Your task to perform on an android device: delete the emails in spam in the gmail app Image 0: 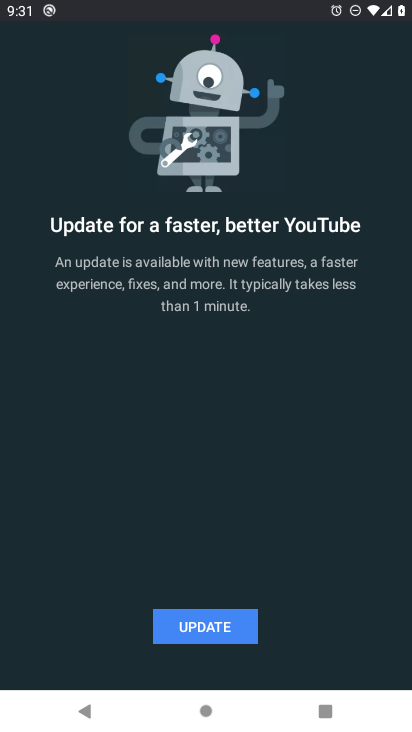
Step 0: press home button
Your task to perform on an android device: delete the emails in spam in the gmail app Image 1: 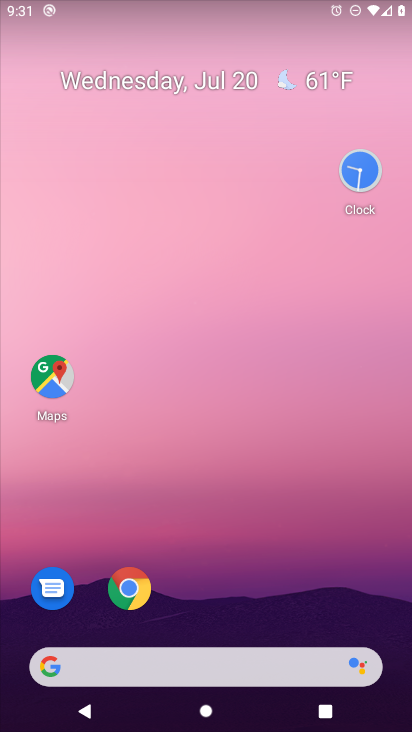
Step 1: drag from (62, 718) to (168, 64)
Your task to perform on an android device: delete the emails in spam in the gmail app Image 2: 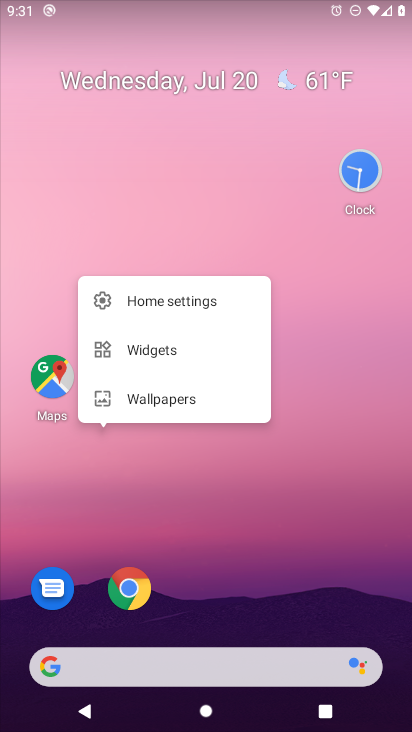
Step 2: drag from (29, 708) to (184, 80)
Your task to perform on an android device: delete the emails in spam in the gmail app Image 3: 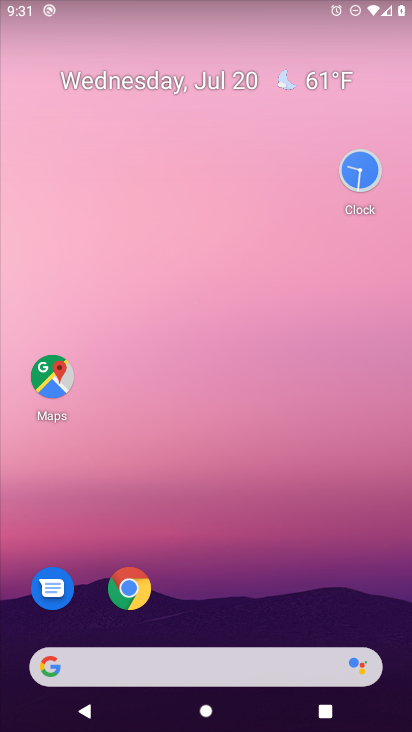
Step 3: drag from (62, 710) to (235, 184)
Your task to perform on an android device: delete the emails in spam in the gmail app Image 4: 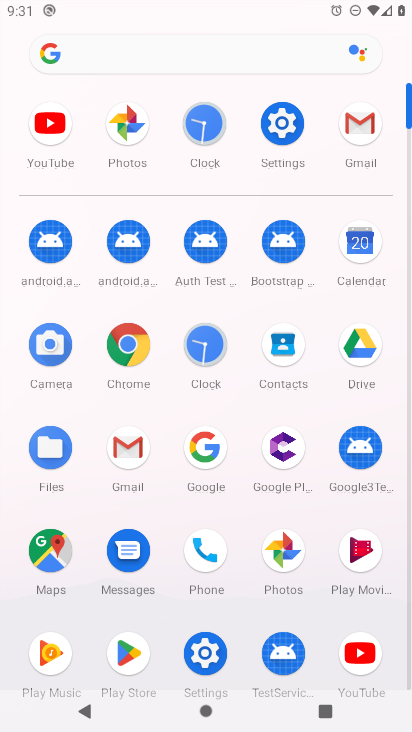
Step 4: click (119, 451)
Your task to perform on an android device: delete the emails in spam in the gmail app Image 5: 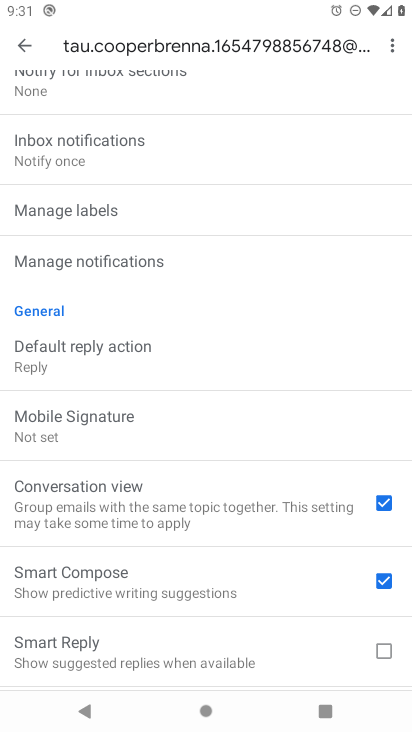
Step 5: click (33, 50)
Your task to perform on an android device: delete the emails in spam in the gmail app Image 6: 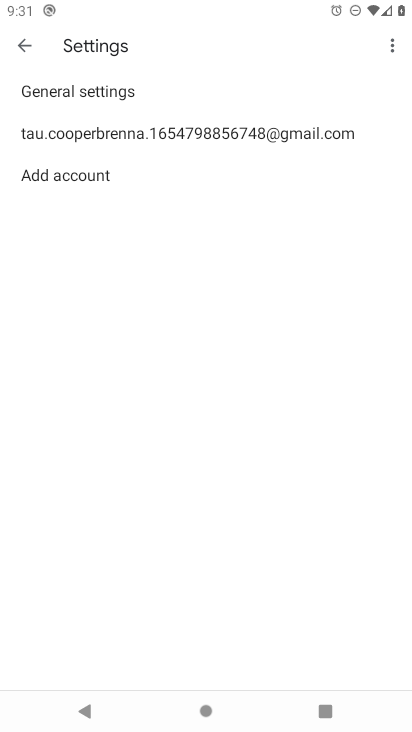
Step 6: click (20, 39)
Your task to perform on an android device: delete the emails in spam in the gmail app Image 7: 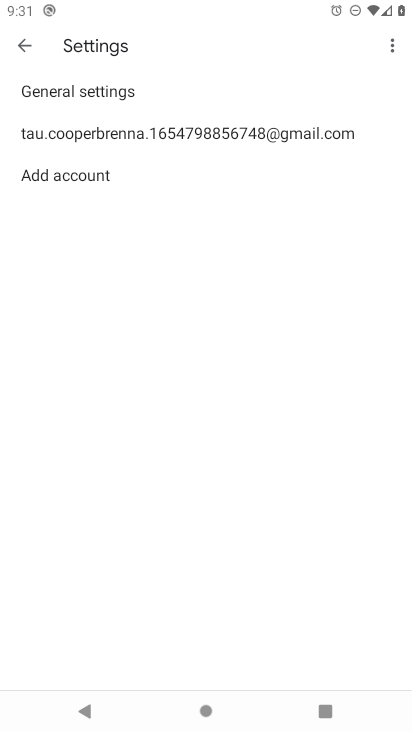
Step 7: click (21, 51)
Your task to perform on an android device: delete the emails in spam in the gmail app Image 8: 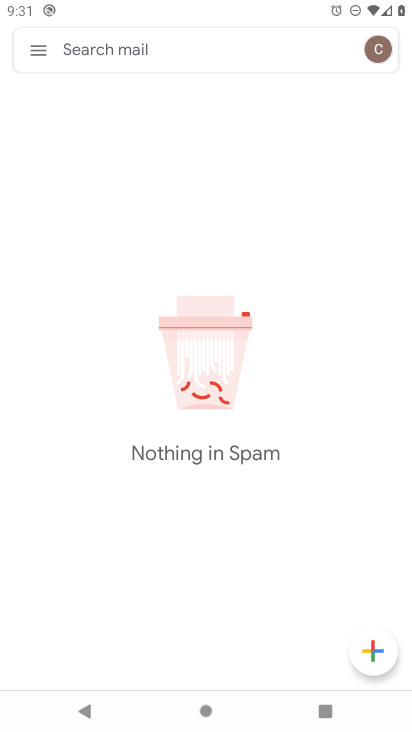
Step 8: click (35, 37)
Your task to perform on an android device: delete the emails in spam in the gmail app Image 9: 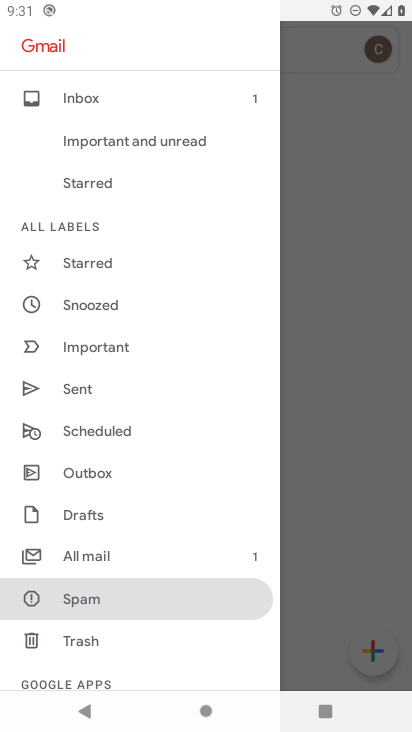
Step 9: click (165, 603)
Your task to perform on an android device: delete the emails in spam in the gmail app Image 10: 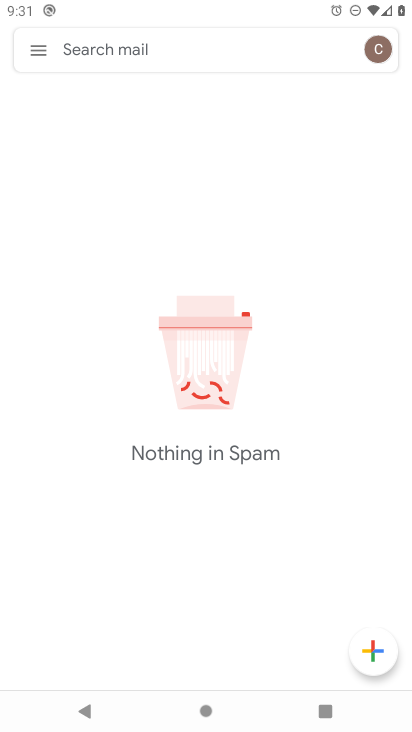
Step 10: task complete